Your task to perform on an android device: Open Google Chrome Image 0: 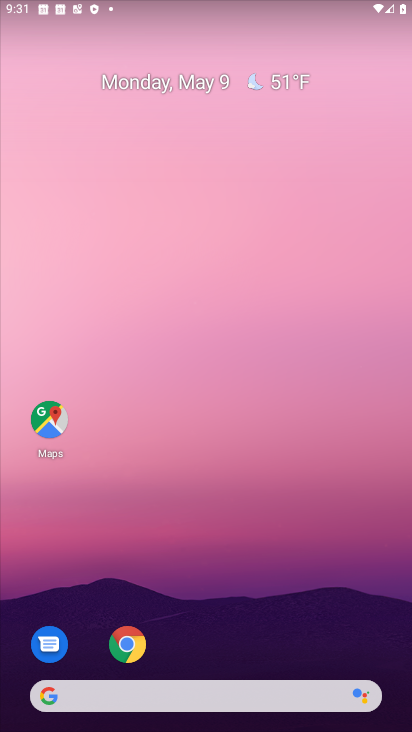
Step 0: drag from (203, 665) to (190, 9)
Your task to perform on an android device: Open Google Chrome Image 1: 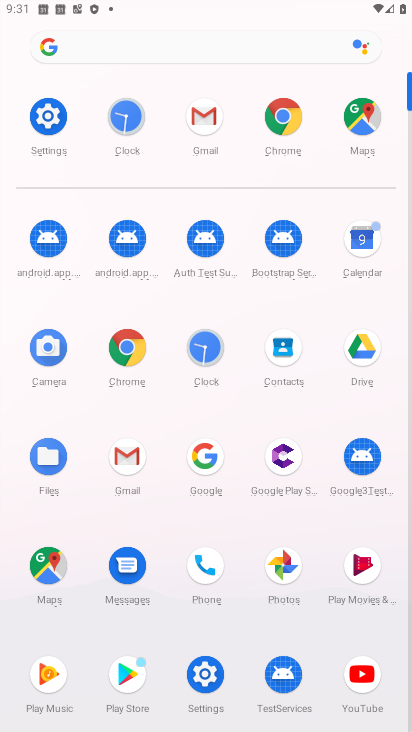
Step 1: click (121, 345)
Your task to perform on an android device: Open Google Chrome Image 2: 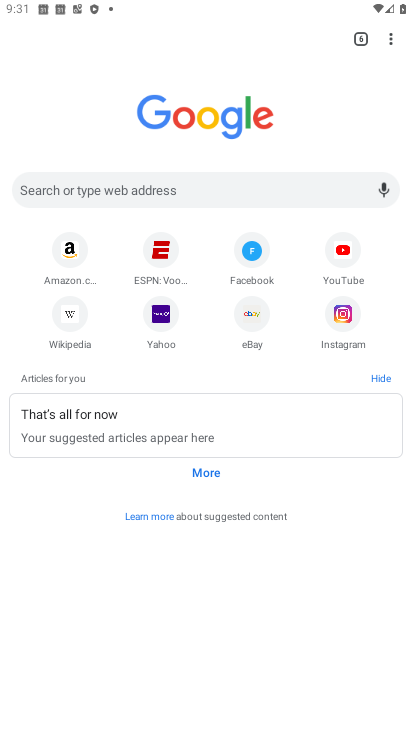
Step 2: task complete